Your task to perform on an android device: Do I have any events today? Image 0: 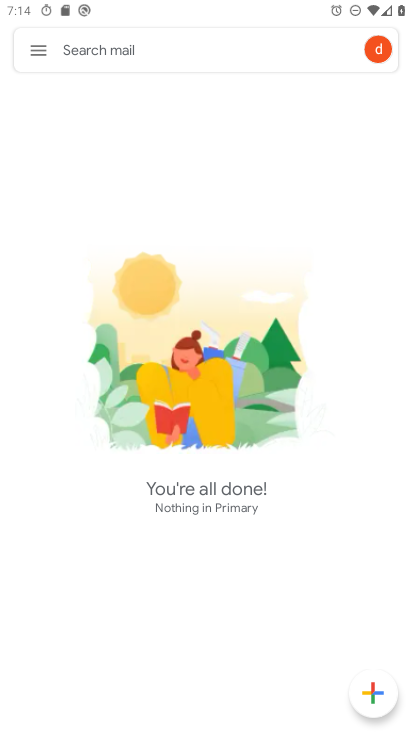
Step 0: press home button
Your task to perform on an android device: Do I have any events today? Image 1: 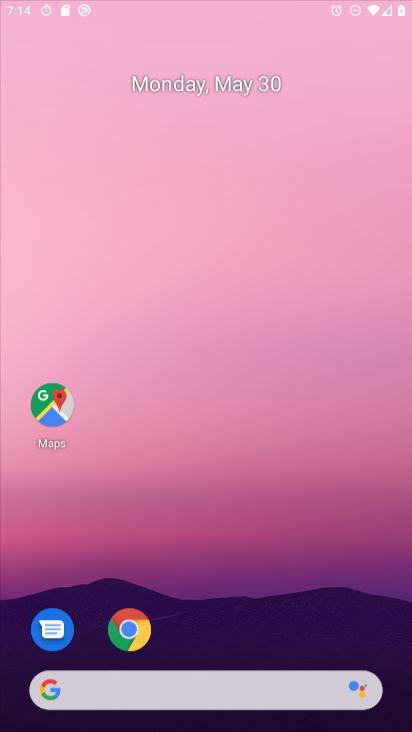
Step 1: drag from (314, 609) to (298, 11)
Your task to perform on an android device: Do I have any events today? Image 2: 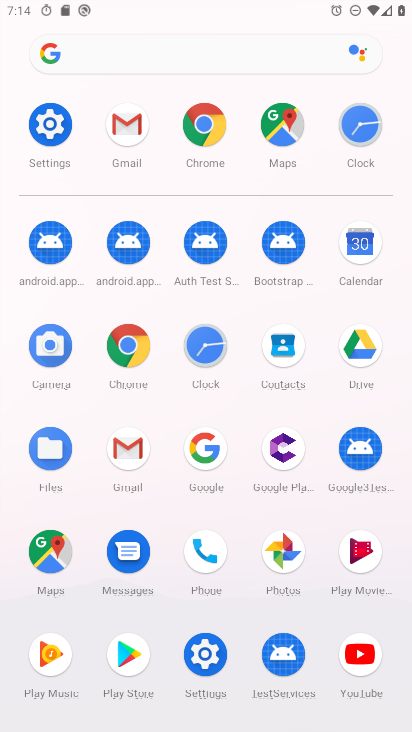
Step 2: click (366, 274)
Your task to perform on an android device: Do I have any events today? Image 3: 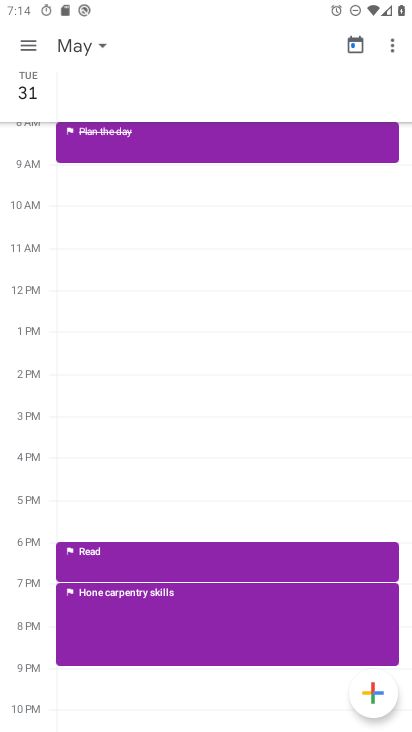
Step 3: click (172, 626)
Your task to perform on an android device: Do I have any events today? Image 4: 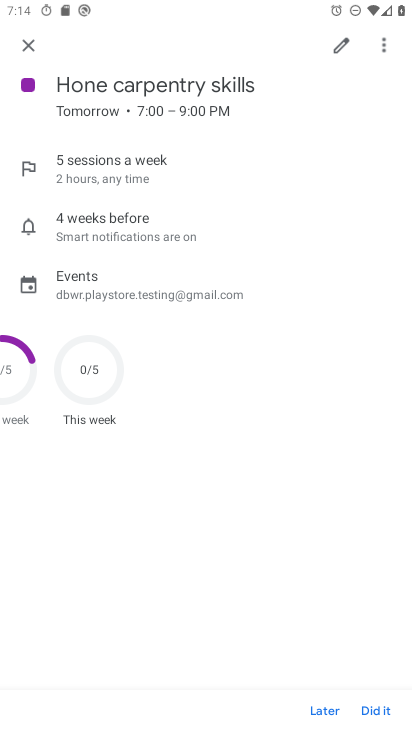
Step 4: task complete